Your task to perform on an android device: Open ESPN.com Image 0: 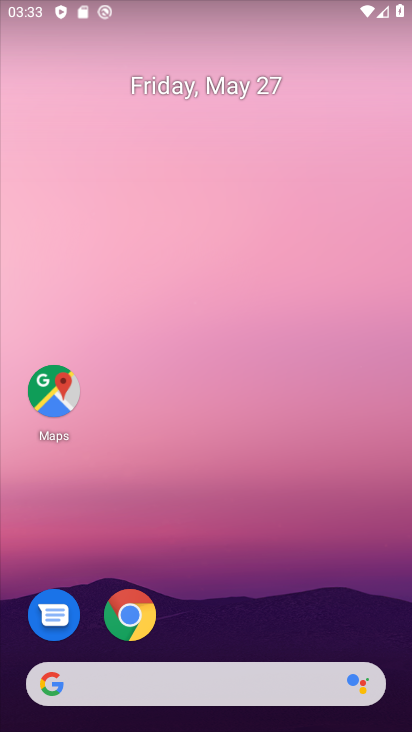
Step 0: click (123, 618)
Your task to perform on an android device: Open ESPN.com Image 1: 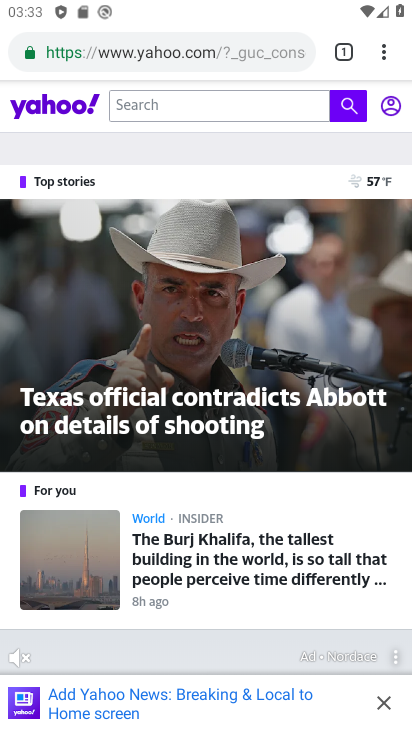
Step 1: click (355, 62)
Your task to perform on an android device: Open ESPN.com Image 2: 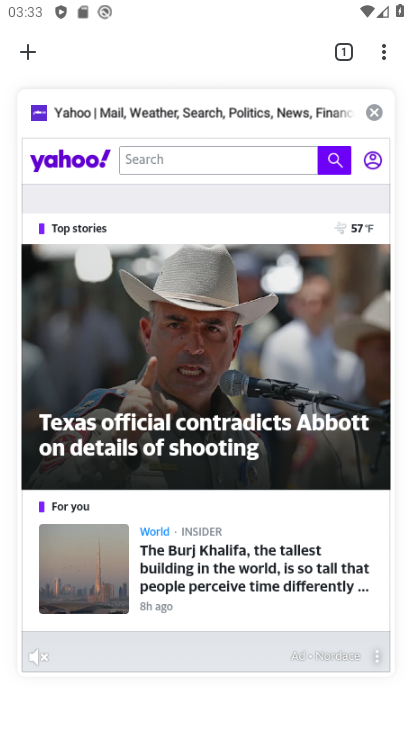
Step 2: click (377, 108)
Your task to perform on an android device: Open ESPN.com Image 3: 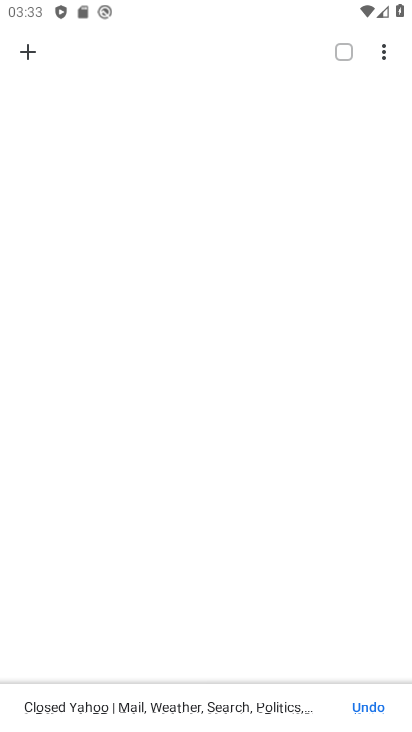
Step 3: click (25, 52)
Your task to perform on an android device: Open ESPN.com Image 4: 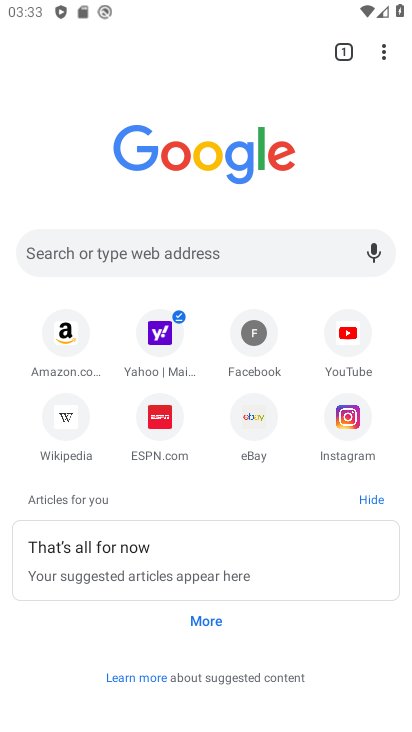
Step 4: click (149, 427)
Your task to perform on an android device: Open ESPN.com Image 5: 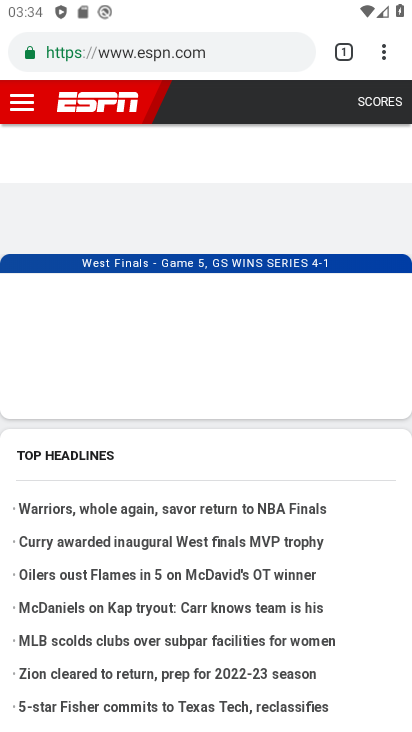
Step 5: task complete